Your task to perform on an android device: toggle wifi Image 0: 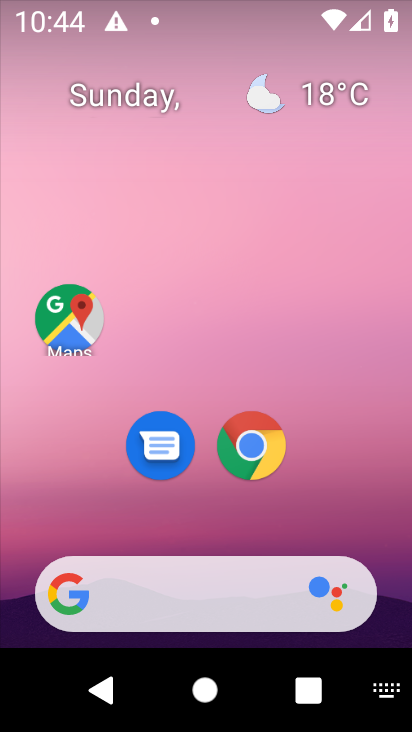
Step 0: drag from (186, 576) to (229, 82)
Your task to perform on an android device: toggle wifi Image 1: 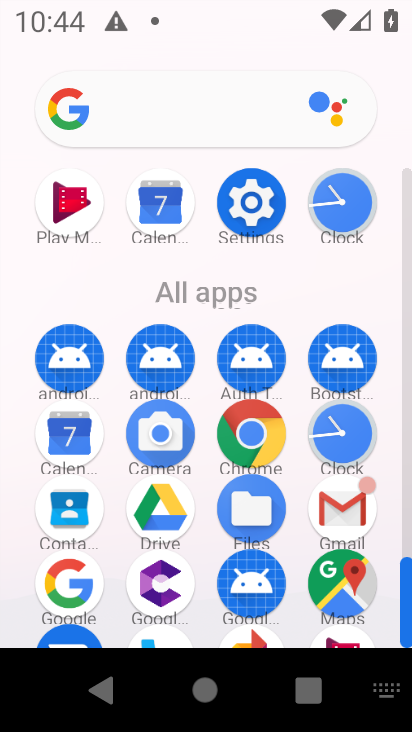
Step 1: click (250, 216)
Your task to perform on an android device: toggle wifi Image 2: 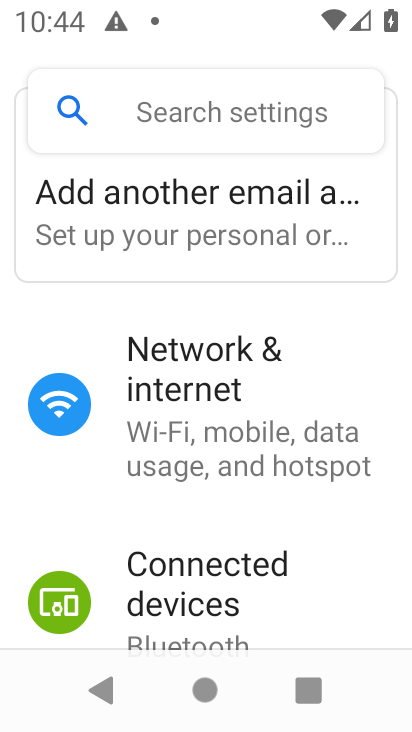
Step 2: click (228, 347)
Your task to perform on an android device: toggle wifi Image 3: 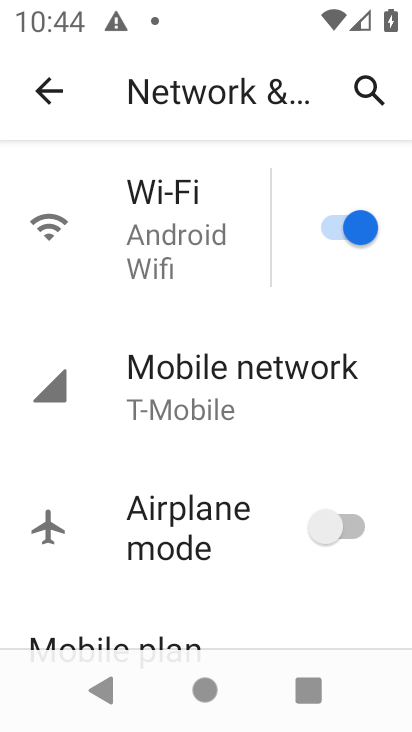
Step 3: click (325, 238)
Your task to perform on an android device: toggle wifi Image 4: 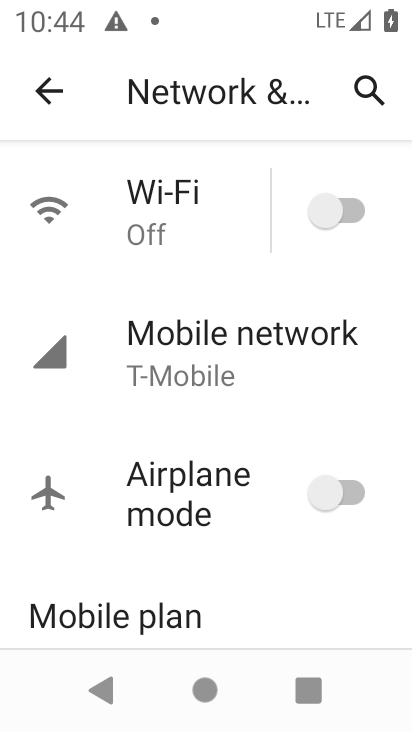
Step 4: task complete